Your task to perform on an android device: Go to battery settings Image 0: 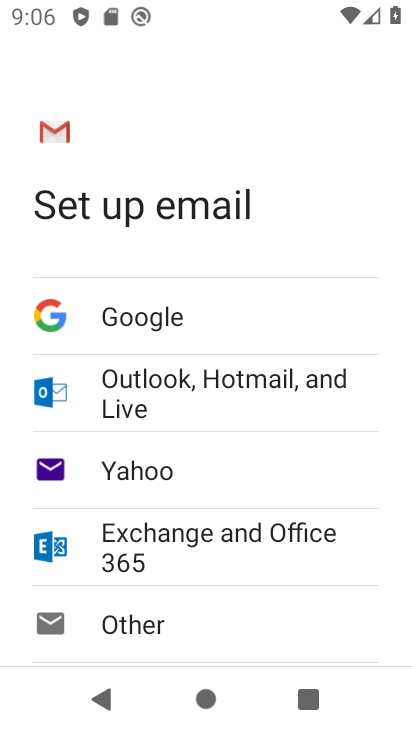
Step 0: press home button
Your task to perform on an android device: Go to battery settings Image 1: 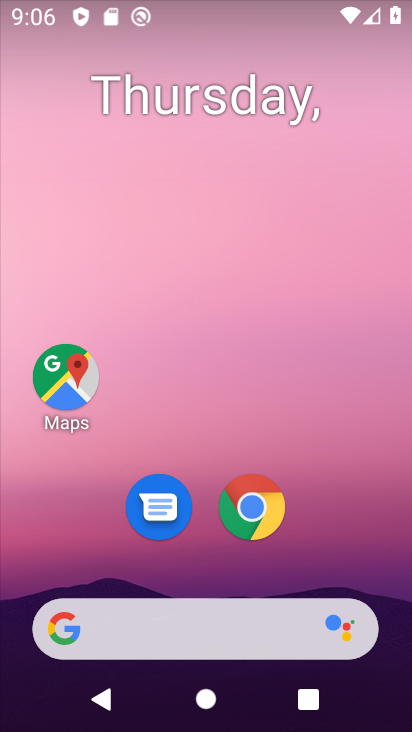
Step 1: drag from (193, 561) to (327, 19)
Your task to perform on an android device: Go to battery settings Image 2: 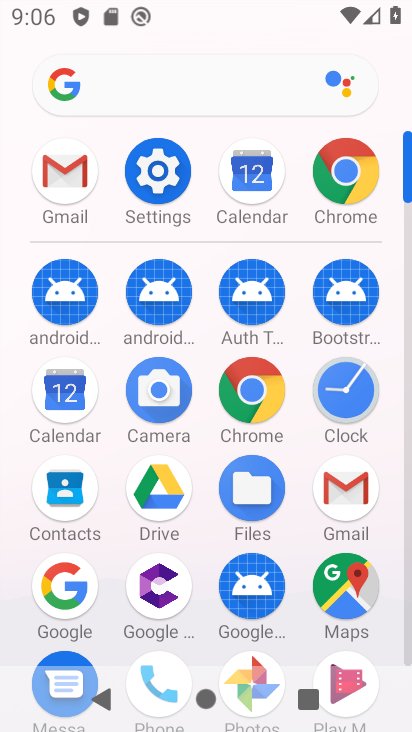
Step 2: click (169, 181)
Your task to perform on an android device: Go to battery settings Image 3: 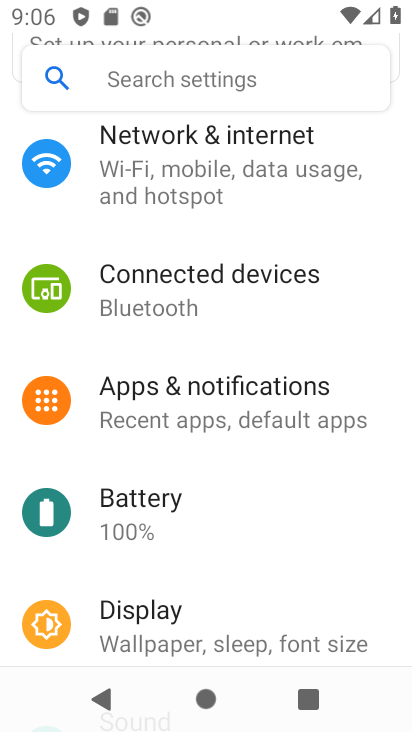
Step 3: click (162, 520)
Your task to perform on an android device: Go to battery settings Image 4: 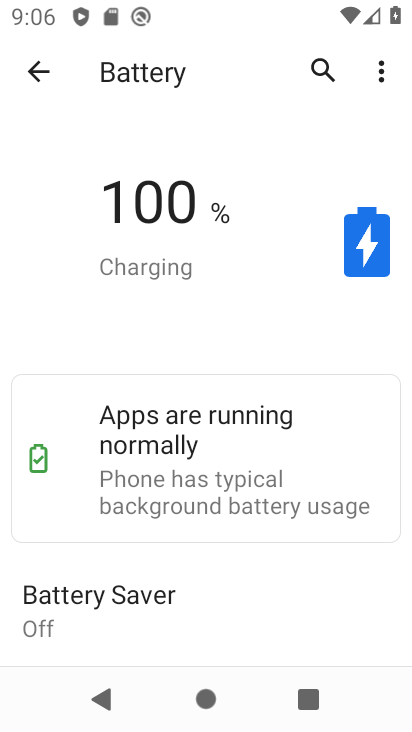
Step 4: task complete